Your task to perform on an android device: find snoozed emails in the gmail app Image 0: 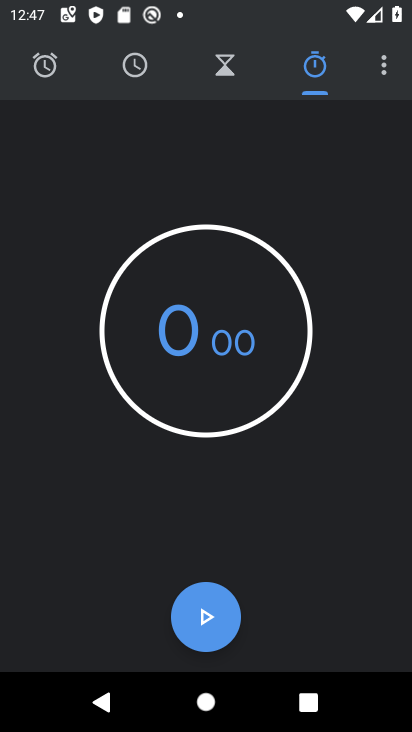
Step 0: press home button
Your task to perform on an android device: find snoozed emails in the gmail app Image 1: 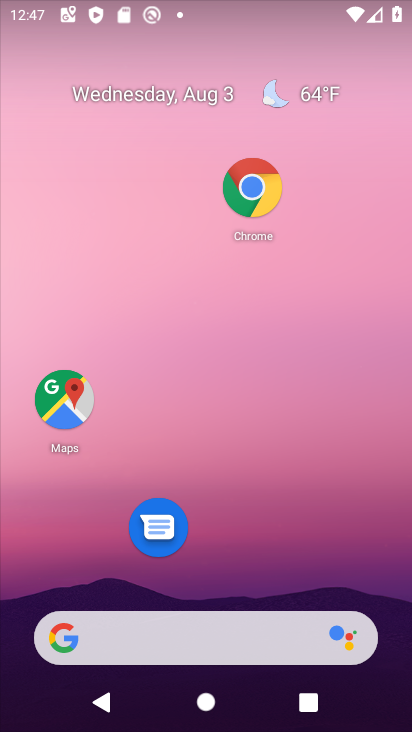
Step 1: drag from (240, 554) to (270, 5)
Your task to perform on an android device: find snoozed emails in the gmail app Image 2: 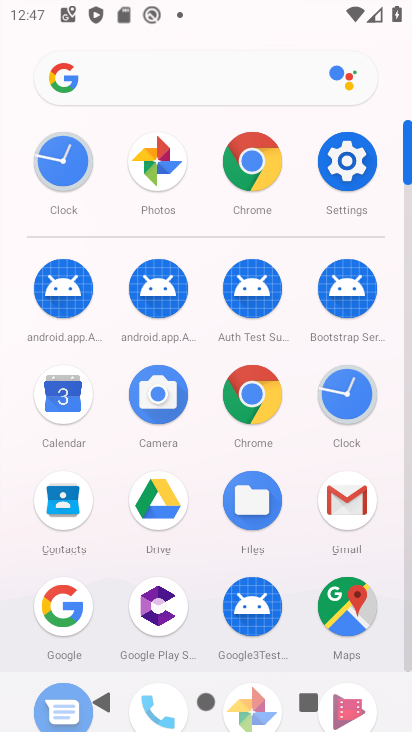
Step 2: click (355, 510)
Your task to perform on an android device: find snoozed emails in the gmail app Image 3: 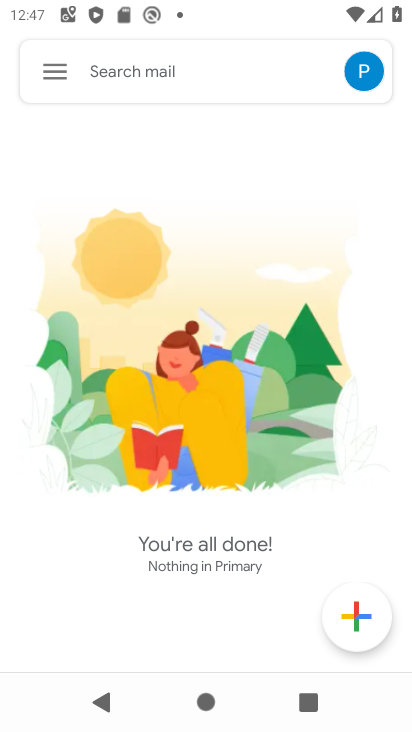
Step 3: click (53, 81)
Your task to perform on an android device: find snoozed emails in the gmail app Image 4: 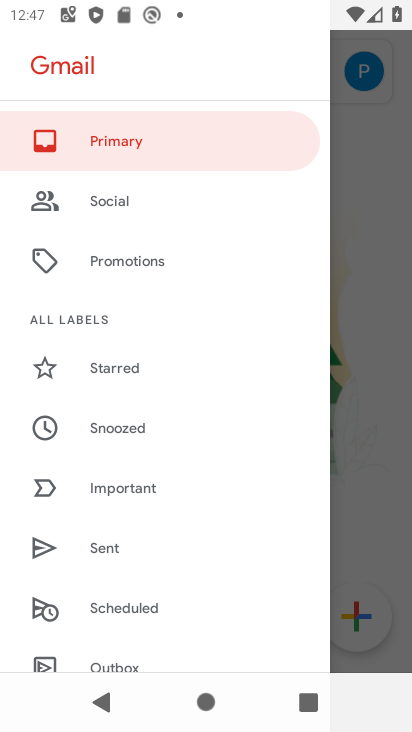
Step 4: click (129, 431)
Your task to perform on an android device: find snoozed emails in the gmail app Image 5: 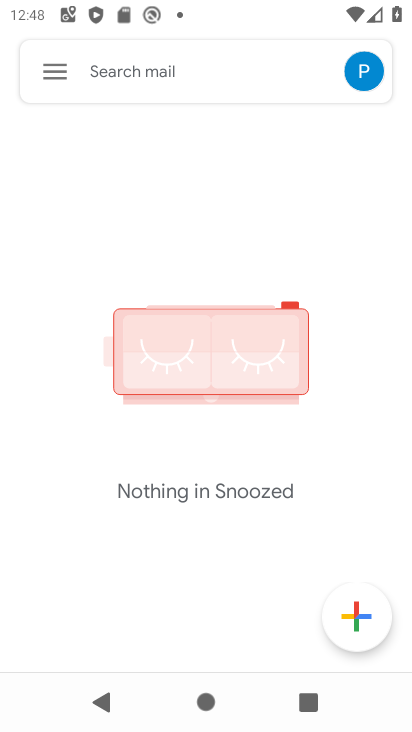
Step 5: task complete